Your task to perform on an android device: Clear all items from cart on amazon. Add usb-c to the cart on amazon Image 0: 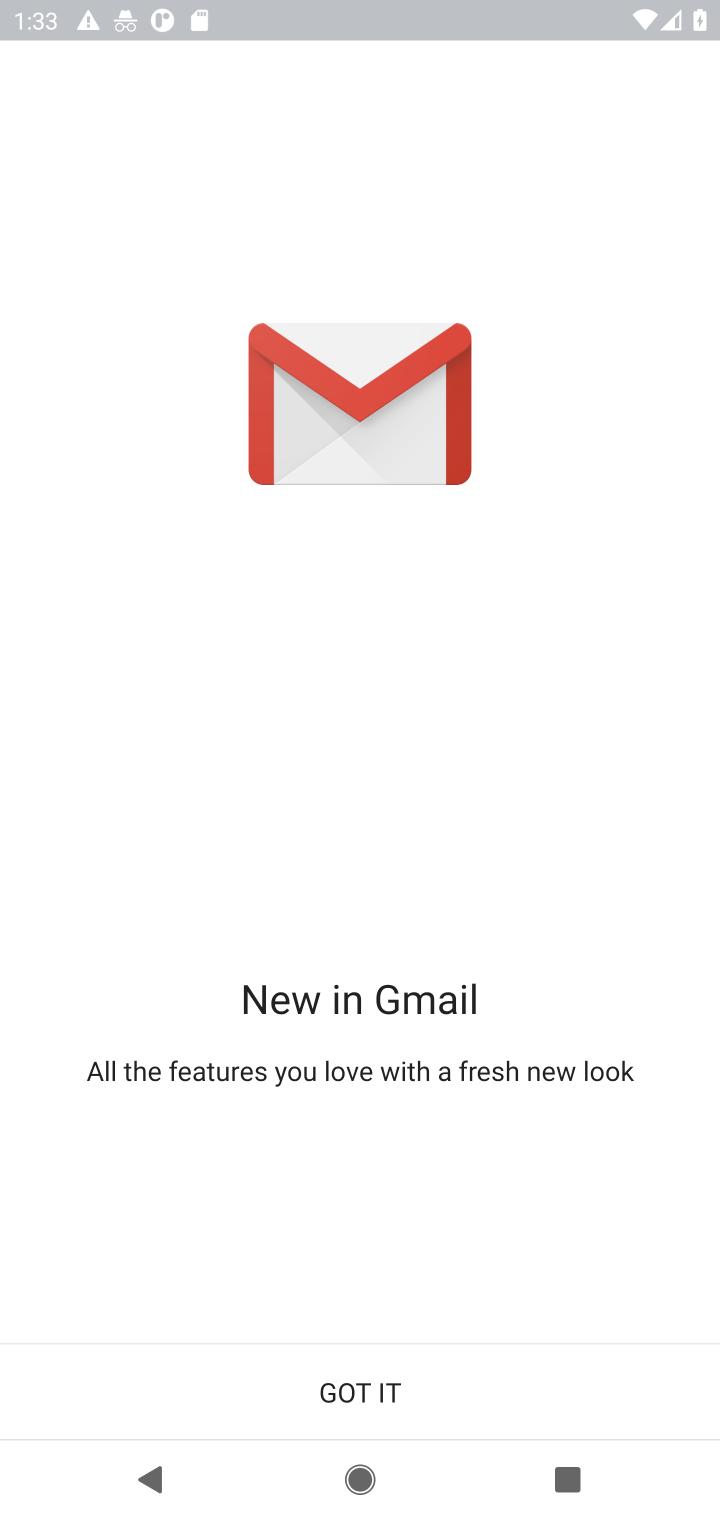
Step 0: press home button
Your task to perform on an android device: Clear all items from cart on amazon. Add usb-c to the cart on amazon Image 1: 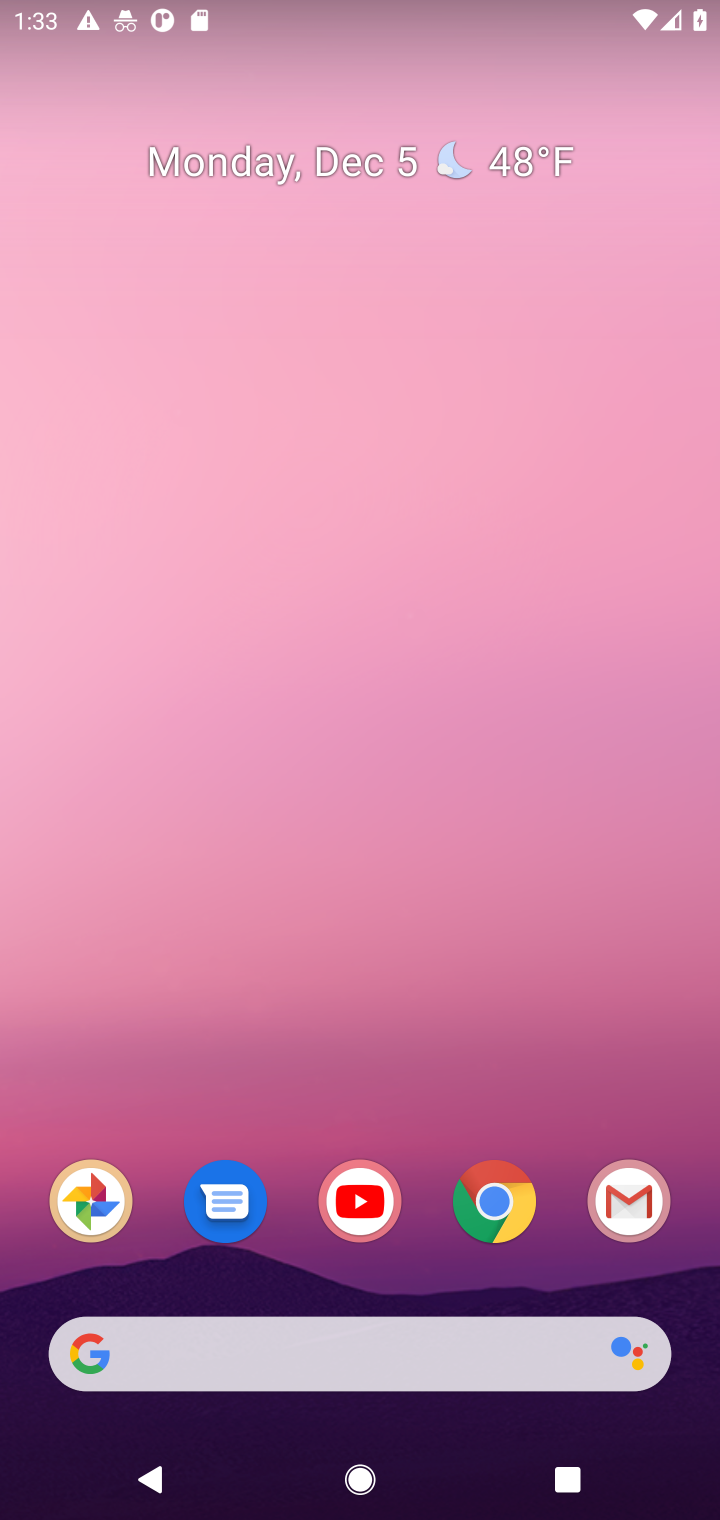
Step 1: click (477, 1210)
Your task to perform on an android device: Clear all items from cart on amazon. Add usb-c to the cart on amazon Image 2: 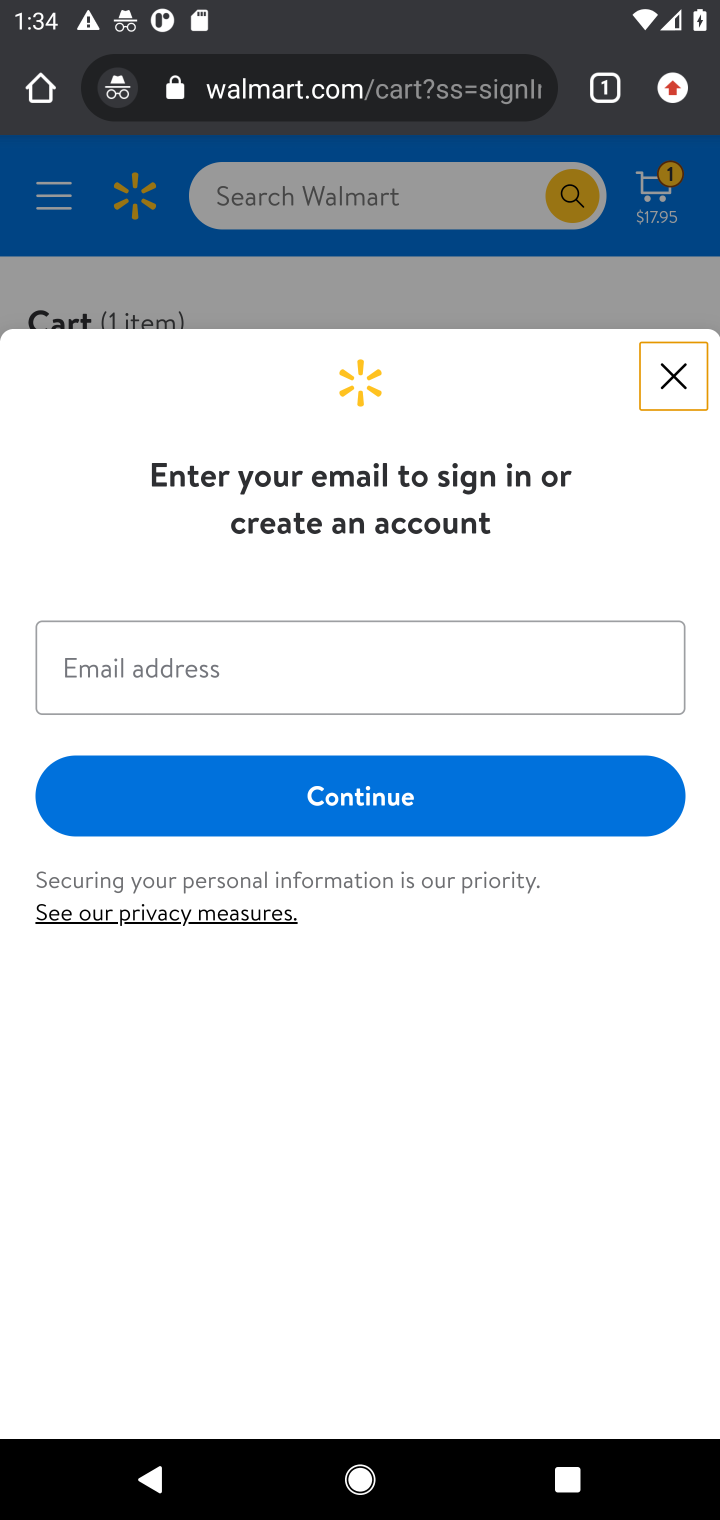
Step 2: click (337, 102)
Your task to perform on an android device: Clear all items from cart on amazon. Add usb-c to the cart on amazon Image 3: 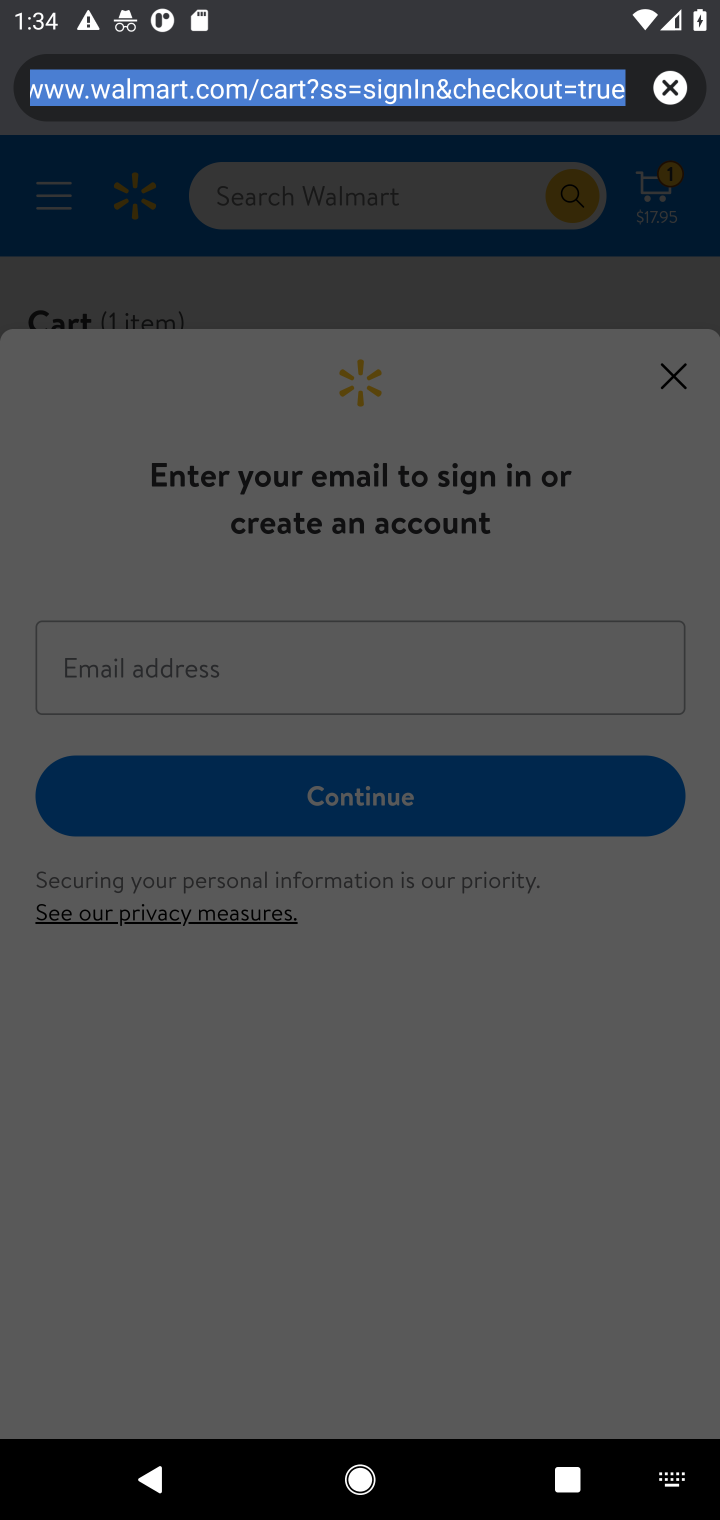
Step 3: click (665, 87)
Your task to perform on an android device: Clear all items from cart on amazon. Add usb-c to the cart on amazon Image 4: 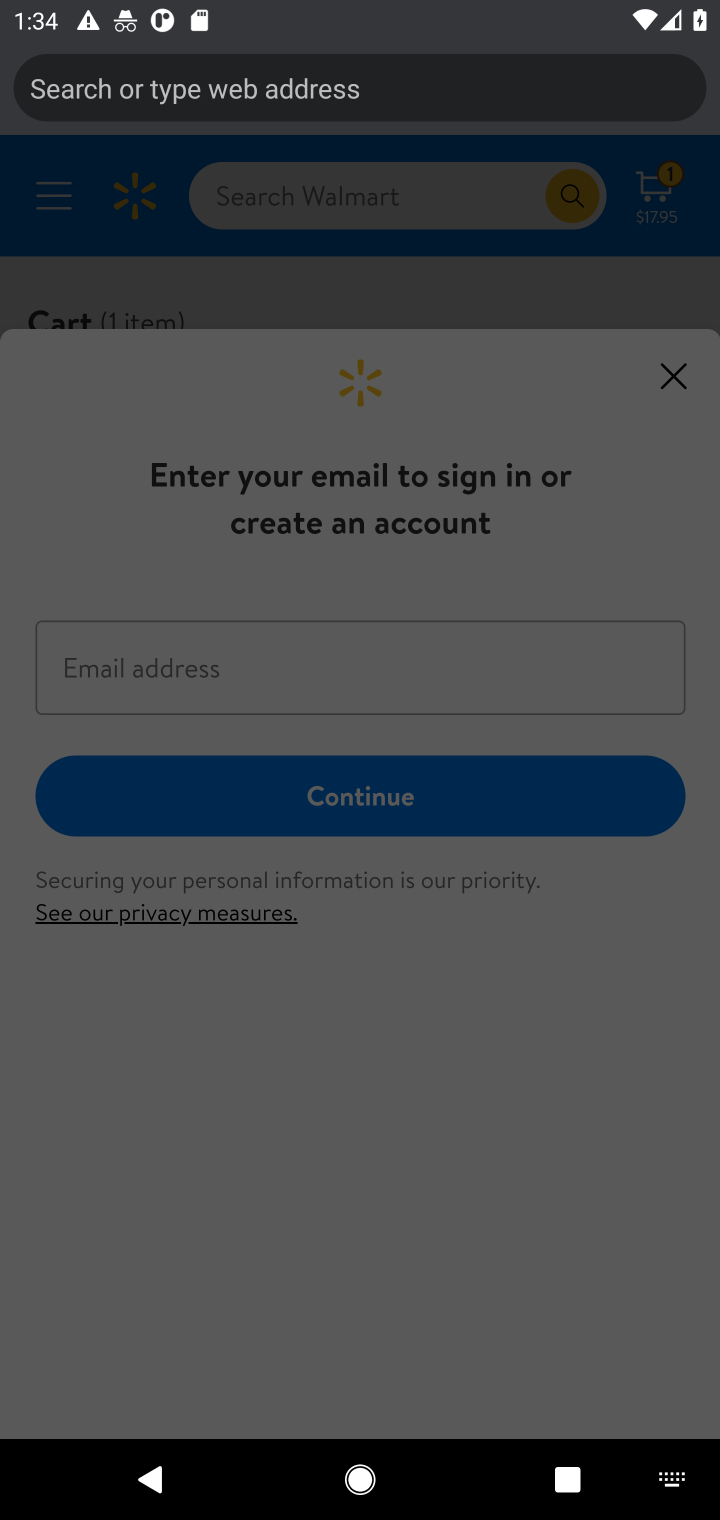
Step 4: type "amazon"
Your task to perform on an android device: Clear all items from cart on amazon. Add usb-c to the cart on amazon Image 5: 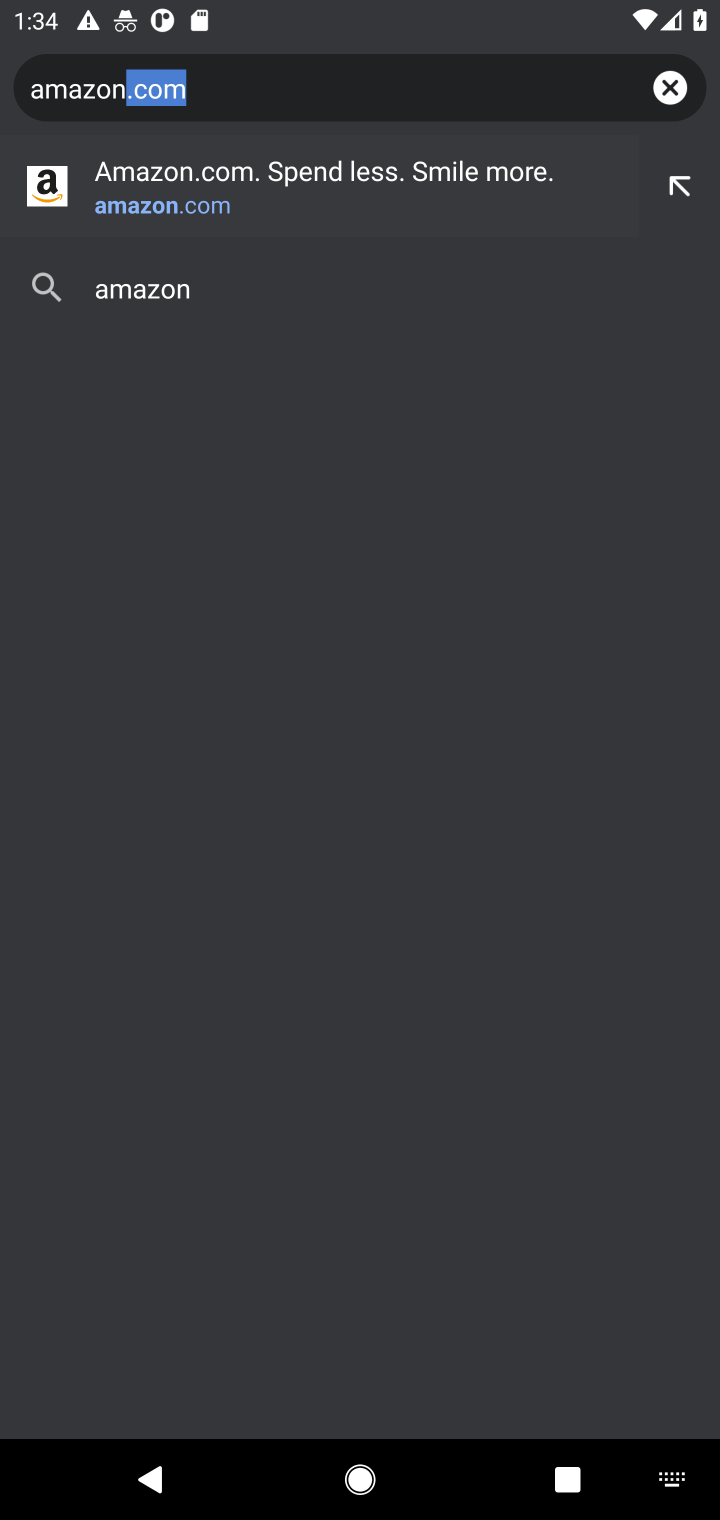
Step 5: click (147, 205)
Your task to perform on an android device: Clear all items from cart on amazon. Add usb-c to the cart on amazon Image 6: 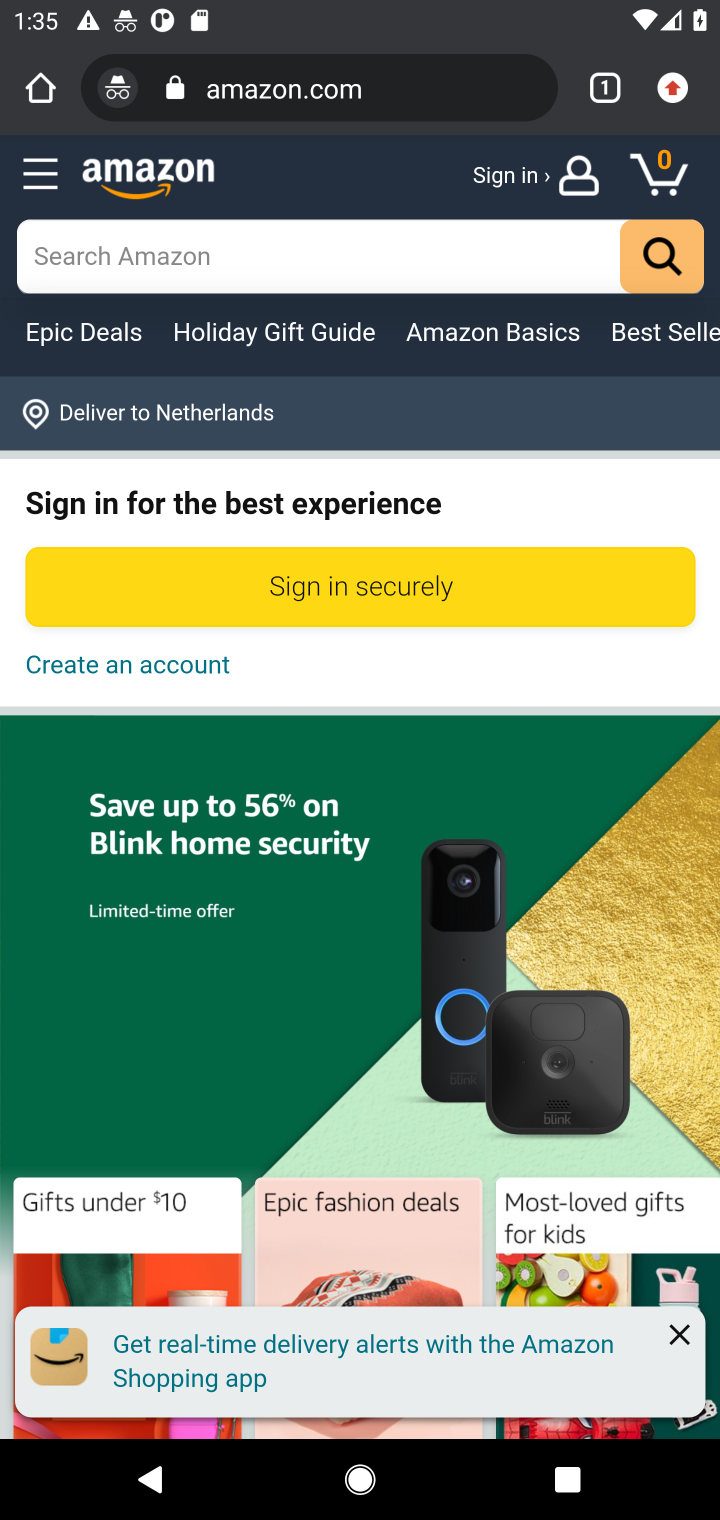
Step 6: click (677, 181)
Your task to perform on an android device: Clear all items from cart on amazon. Add usb-c to the cart on amazon Image 7: 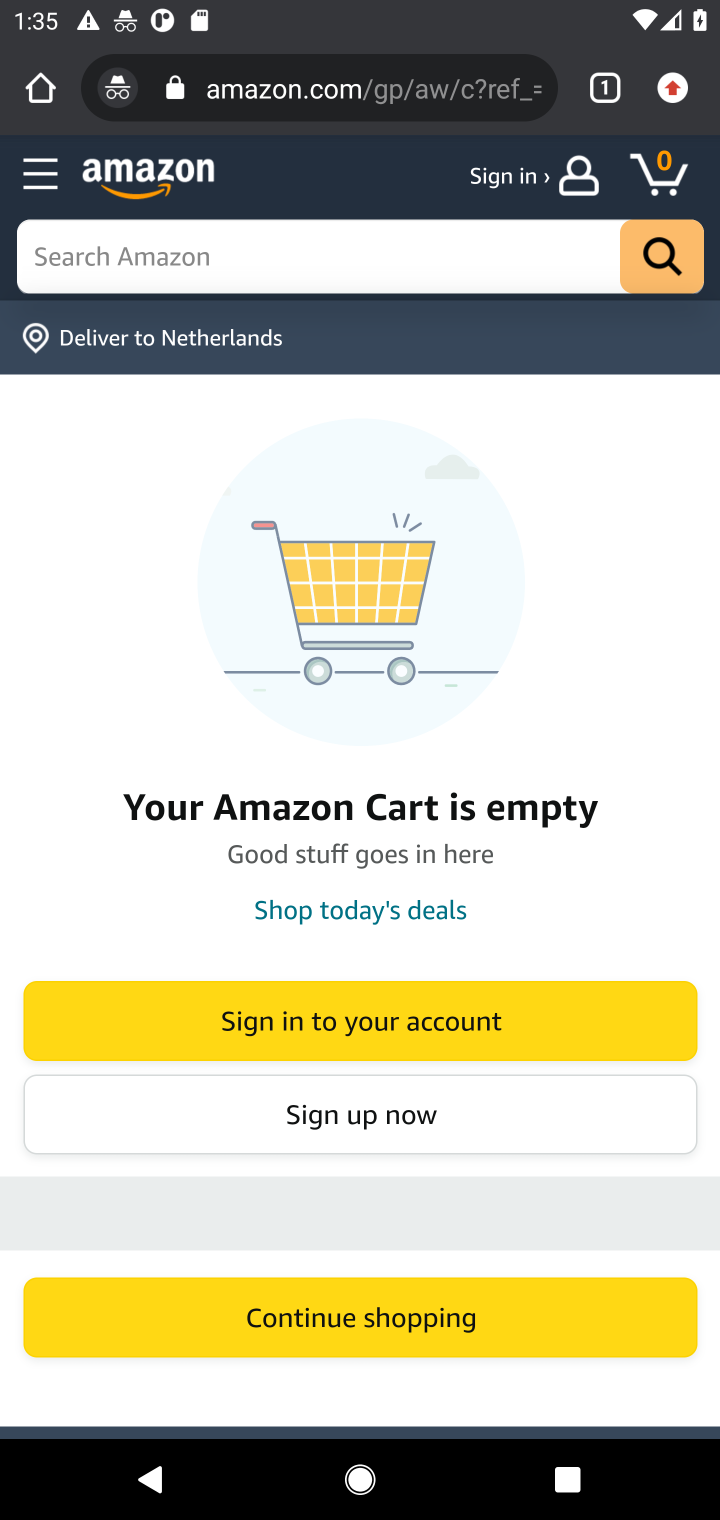
Step 7: click (185, 204)
Your task to perform on an android device: Clear all items from cart on amazon. Add usb-c to the cart on amazon Image 8: 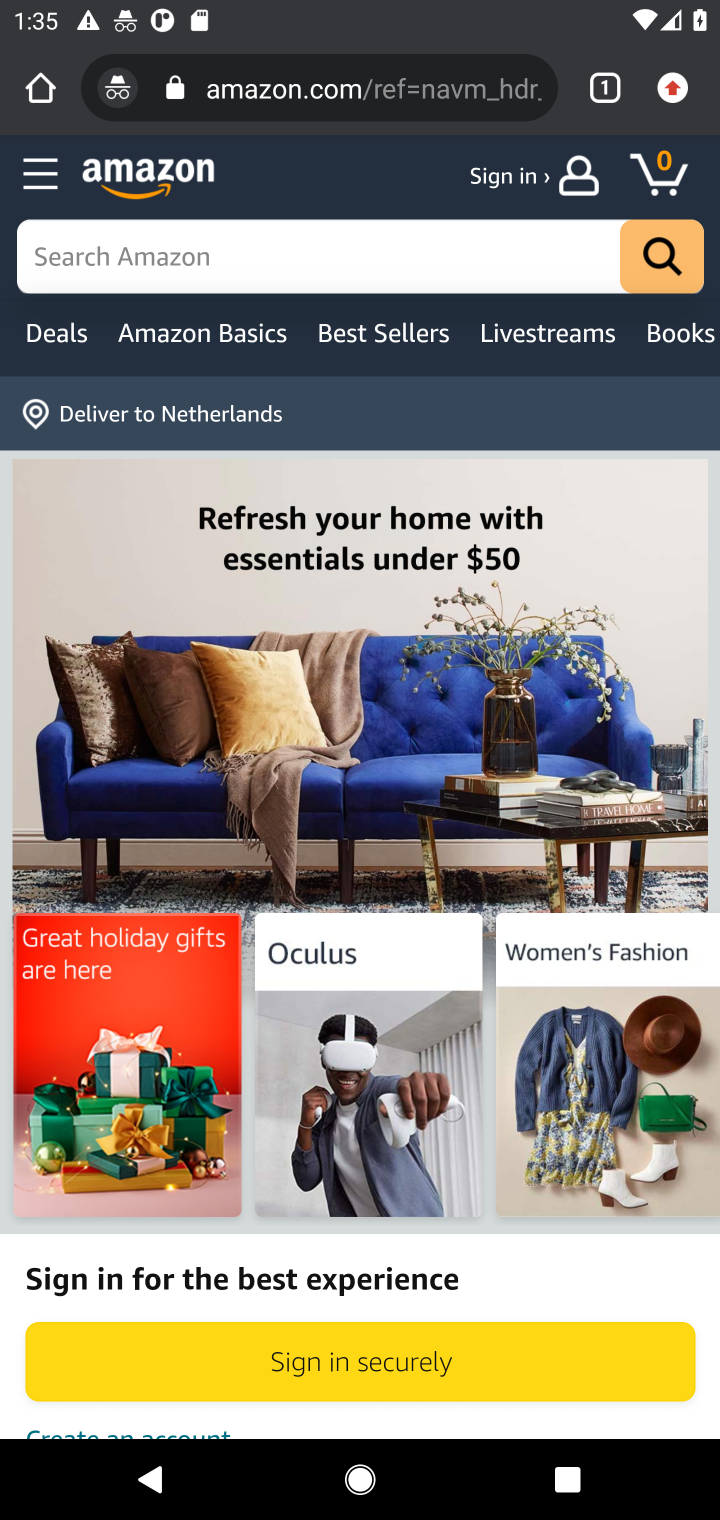
Step 8: click (226, 249)
Your task to perform on an android device: Clear all items from cart on amazon. Add usb-c to the cart on amazon Image 9: 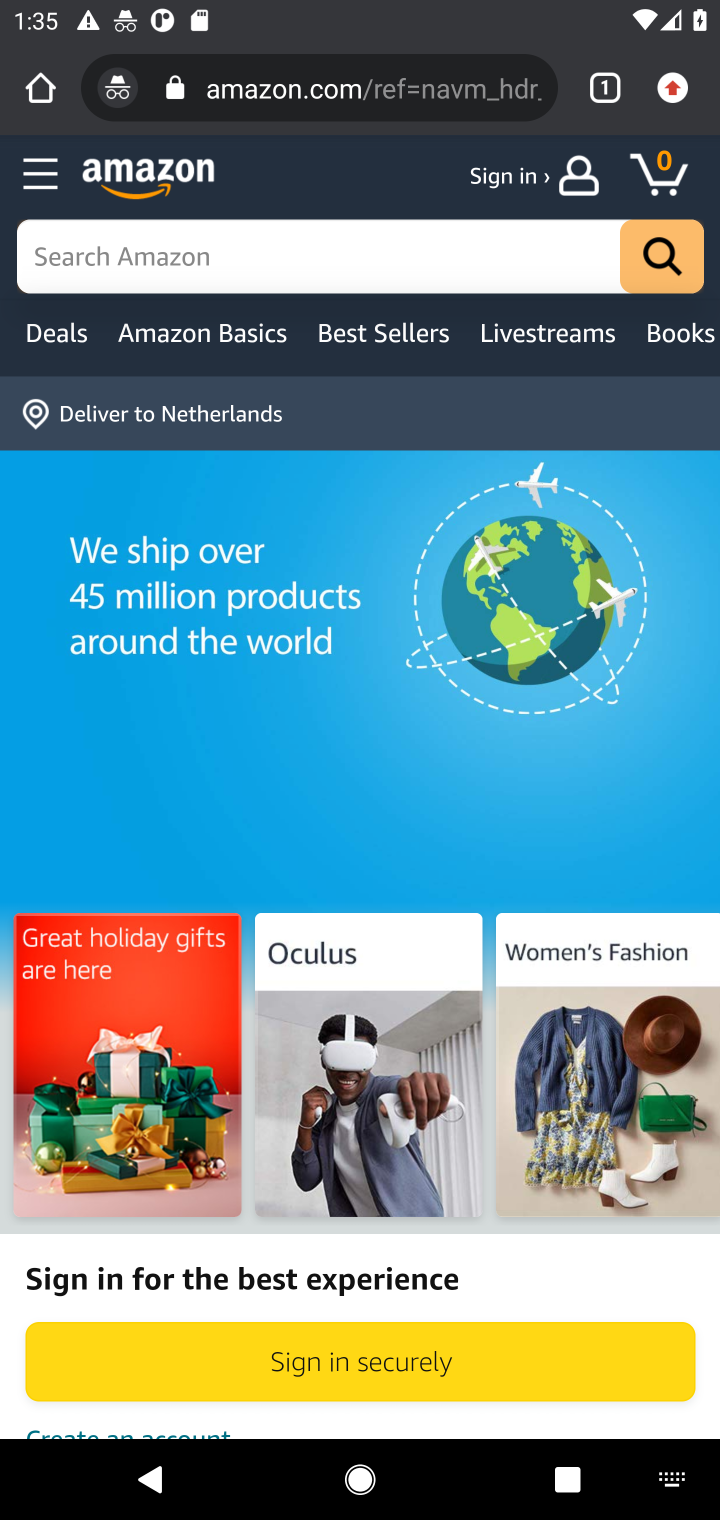
Step 9: click (226, 249)
Your task to perform on an android device: Clear all items from cart on amazon. Add usb-c to the cart on amazon Image 10: 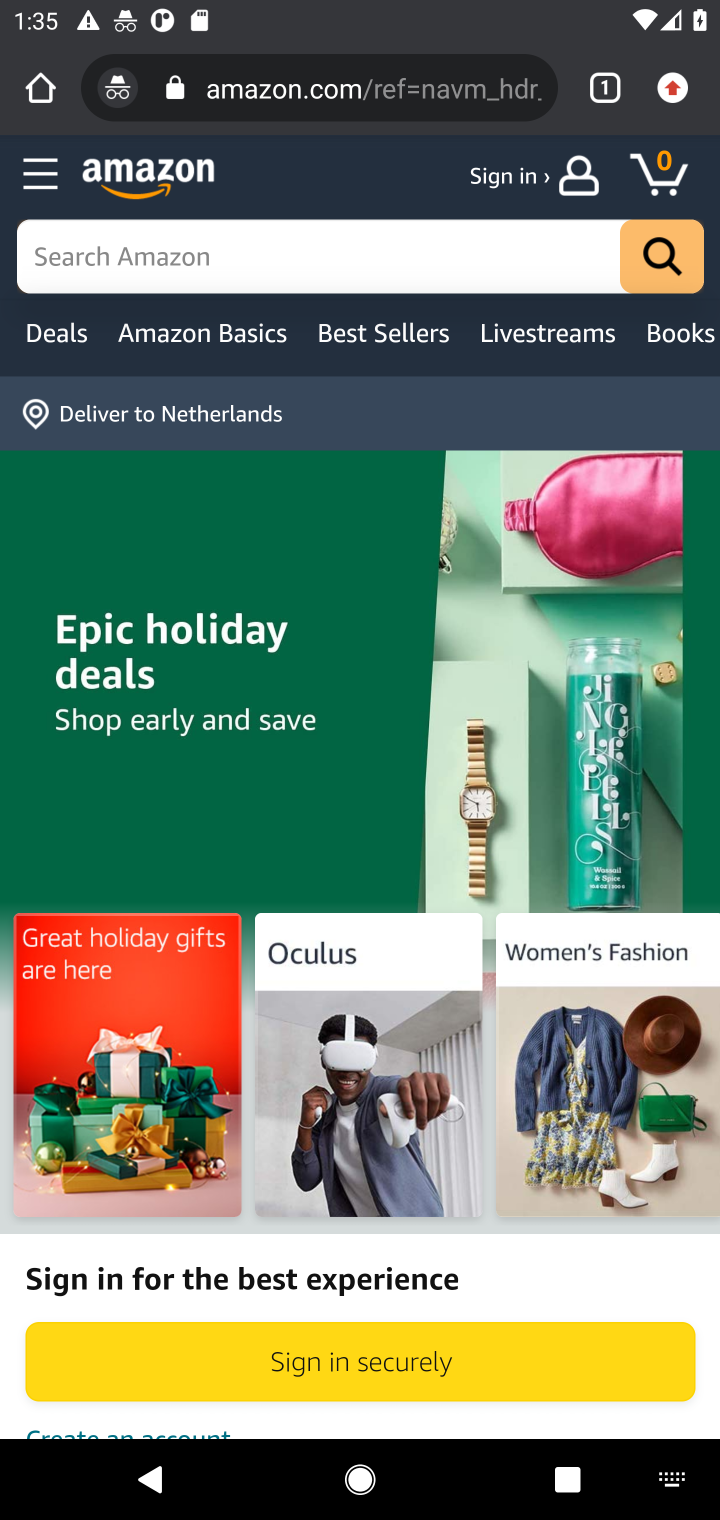
Step 10: type "usb -c"
Your task to perform on an android device: Clear all items from cart on amazon. Add usb-c to the cart on amazon Image 11: 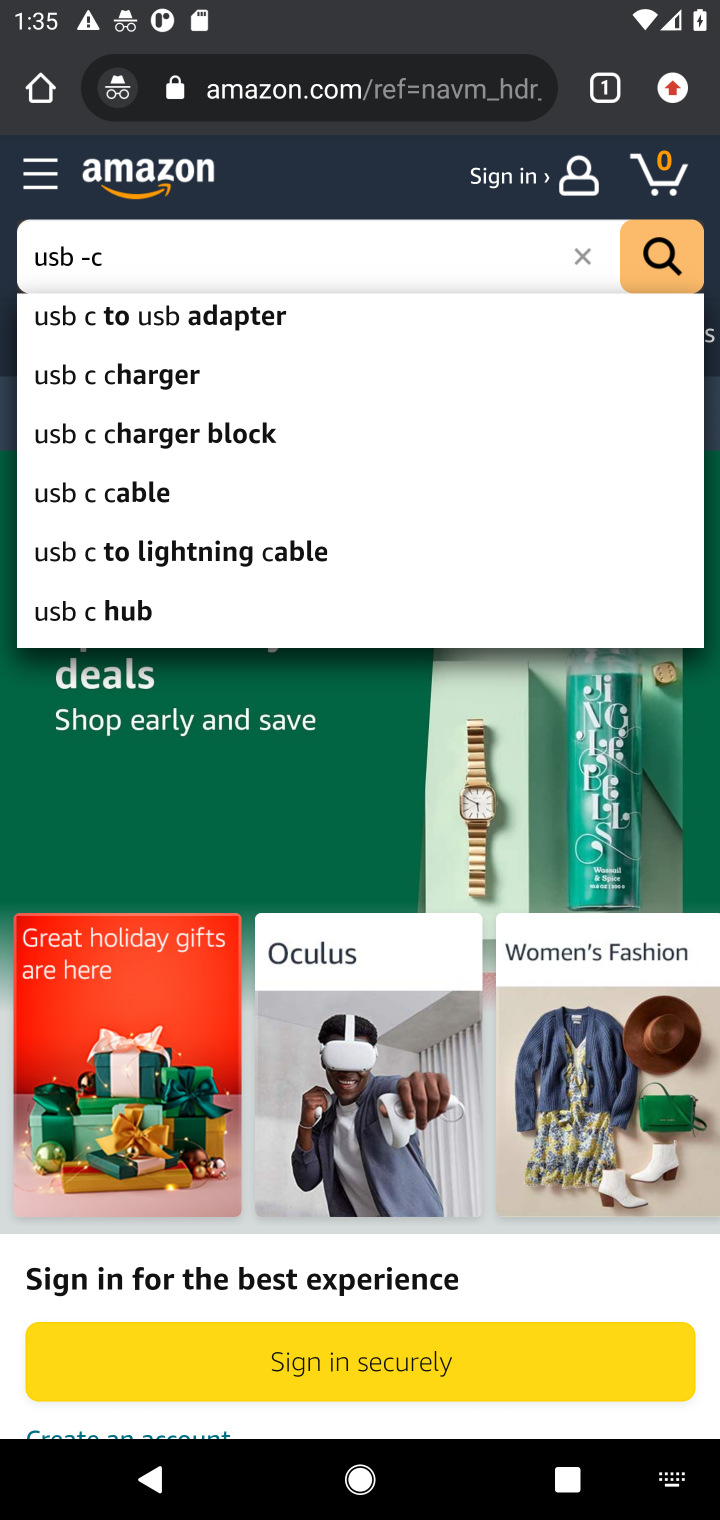
Step 11: click (660, 252)
Your task to perform on an android device: Clear all items from cart on amazon. Add usb-c to the cart on amazon Image 12: 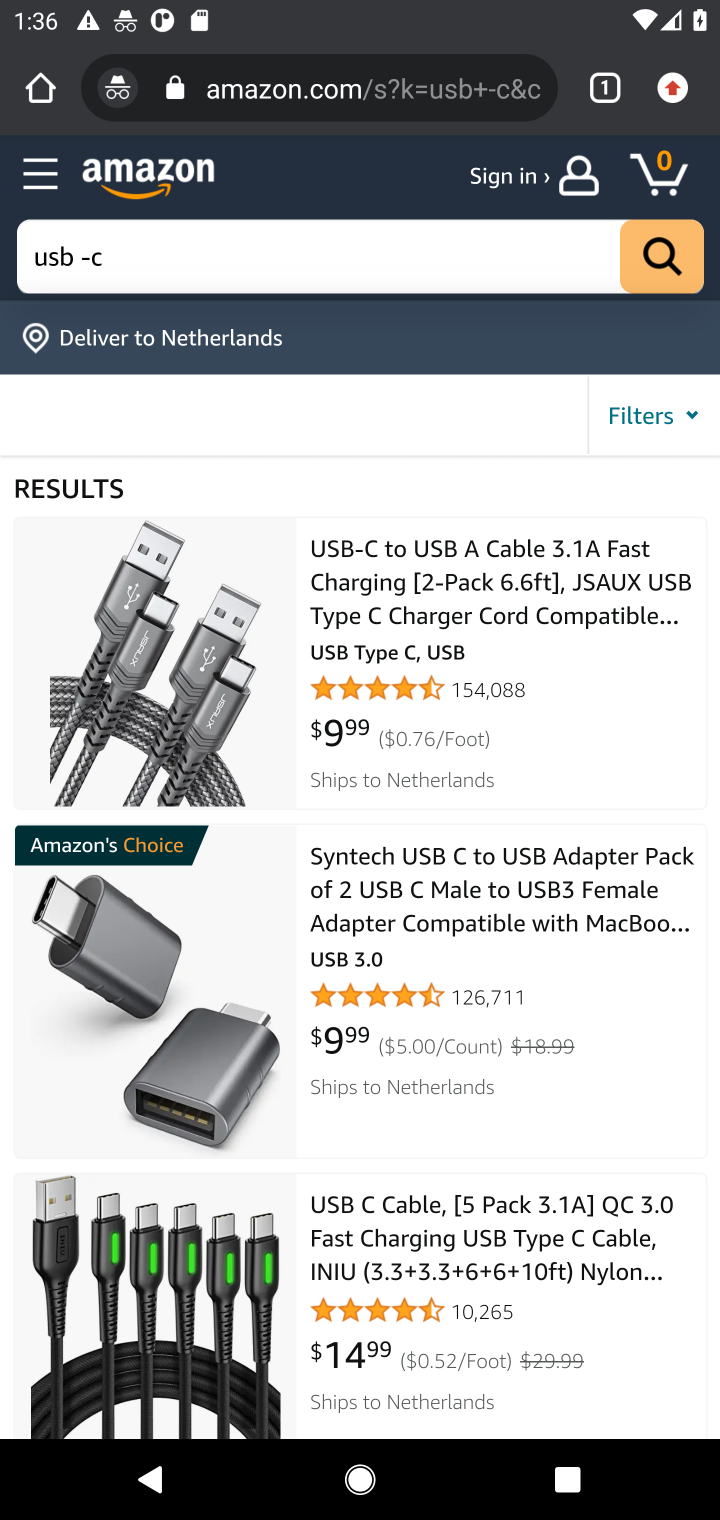
Step 12: click (407, 857)
Your task to perform on an android device: Clear all items from cart on amazon. Add usb-c to the cart on amazon Image 13: 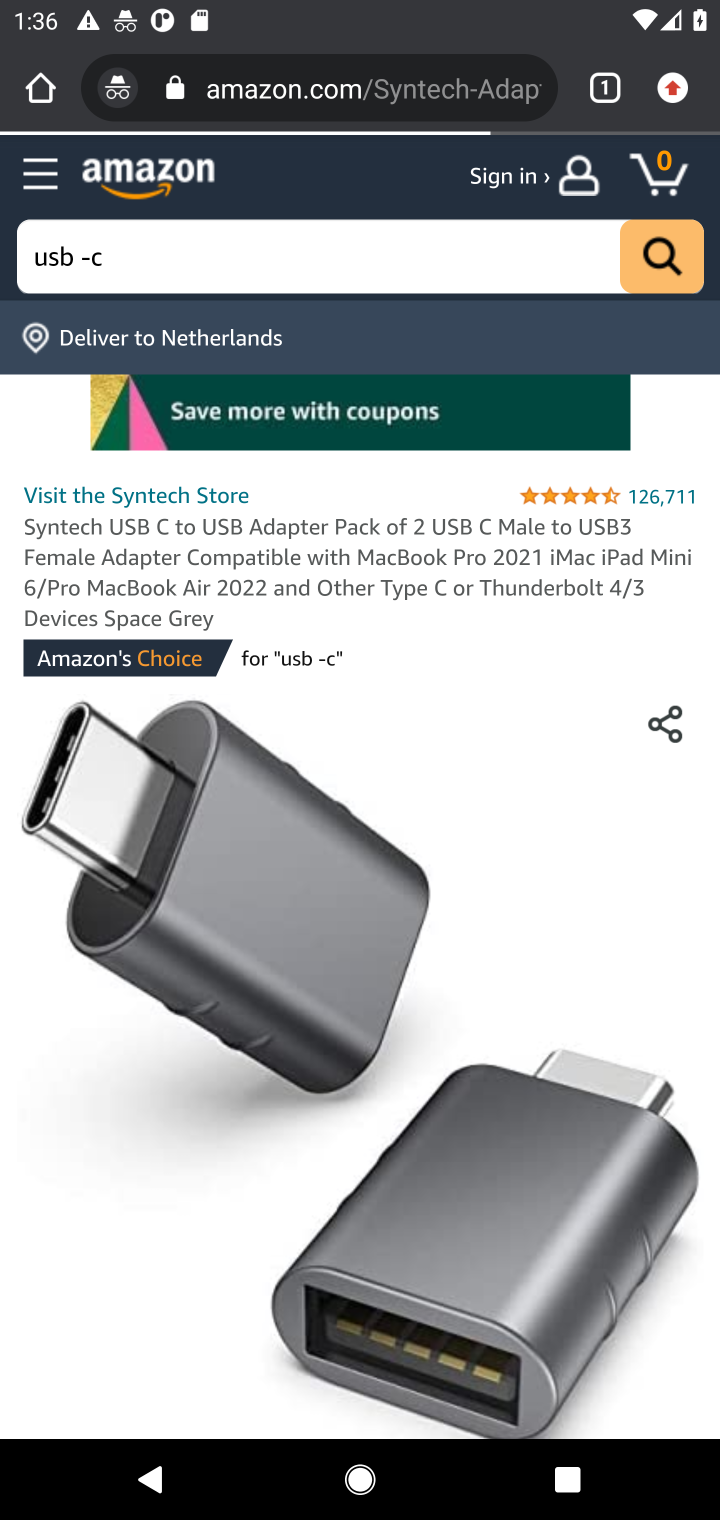
Step 13: drag from (168, 1193) to (322, 379)
Your task to perform on an android device: Clear all items from cart on amazon. Add usb-c to the cart on amazon Image 14: 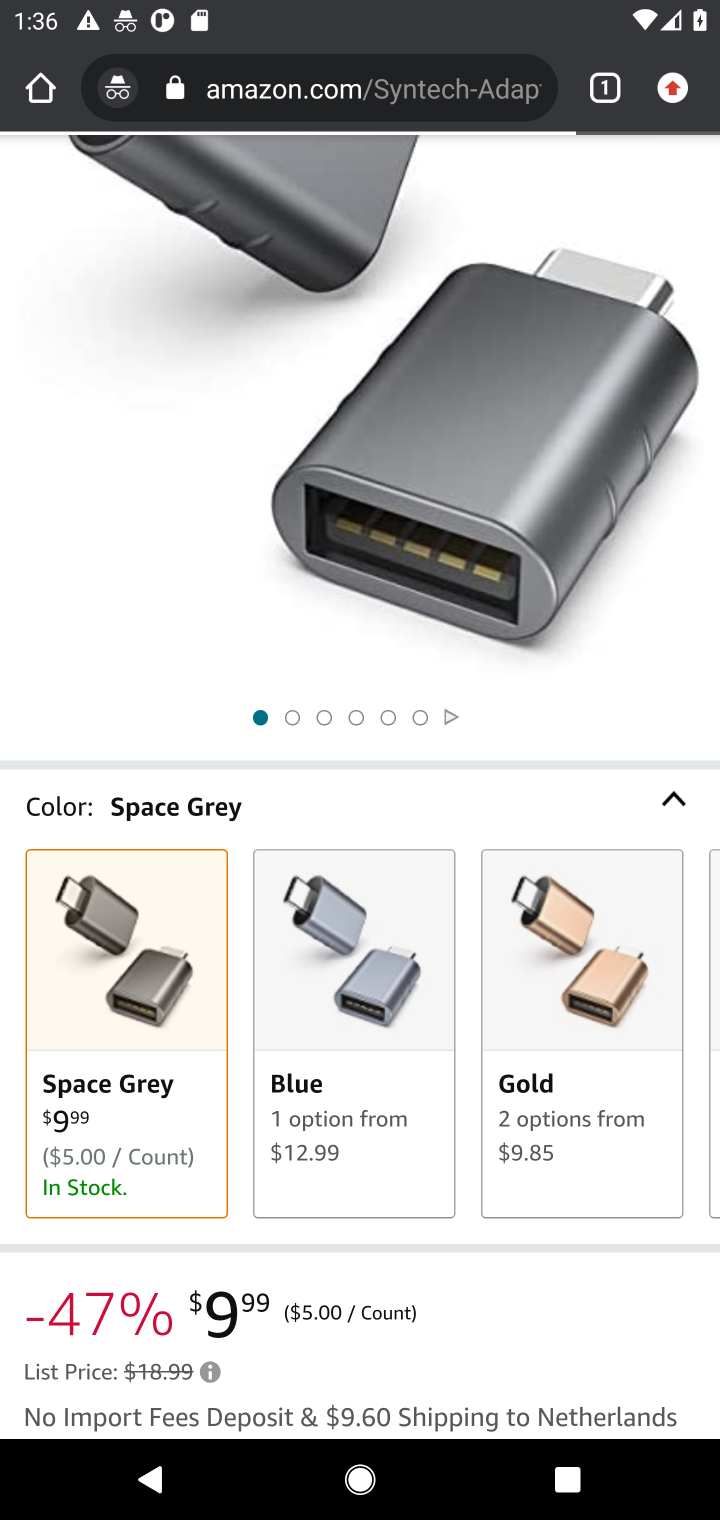
Step 14: drag from (358, 1283) to (419, 453)
Your task to perform on an android device: Clear all items from cart on amazon. Add usb-c to the cart on amazon Image 15: 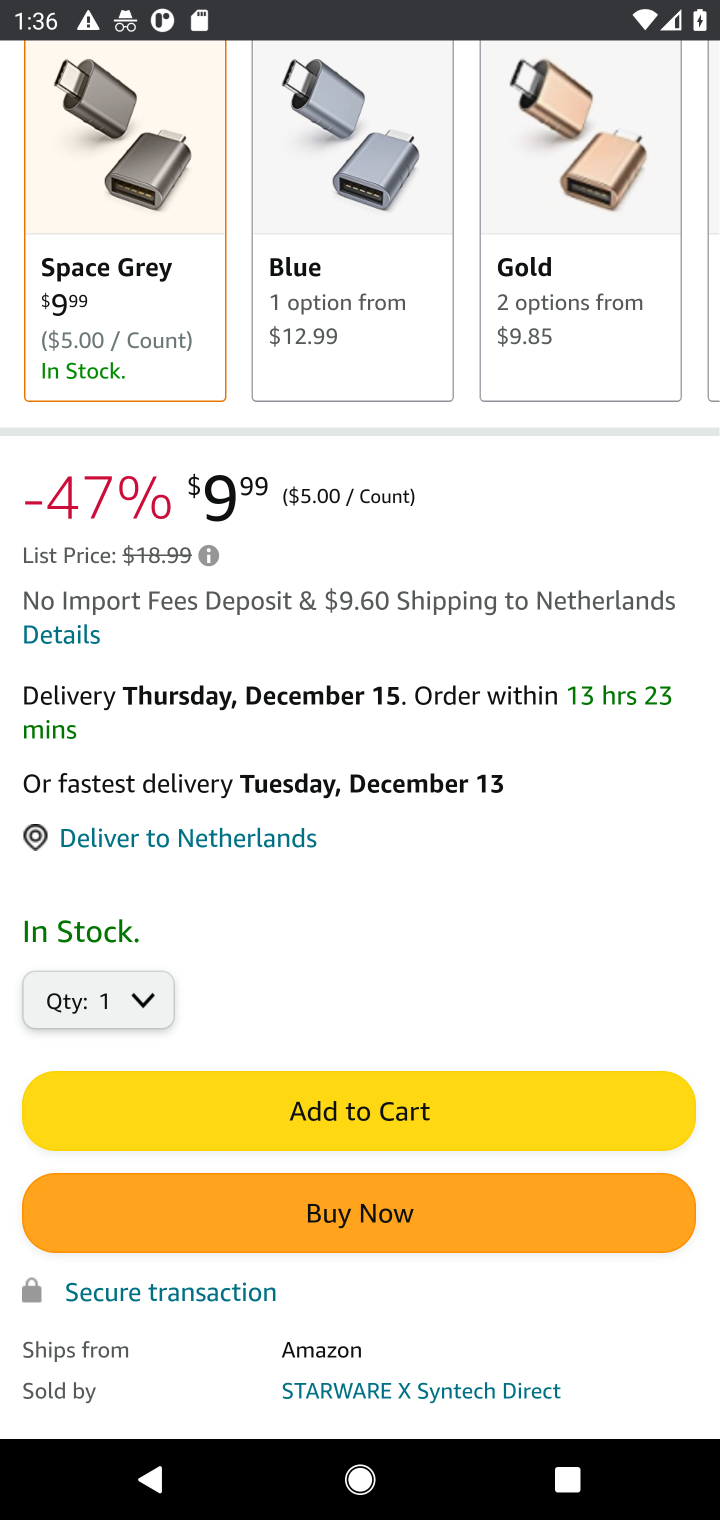
Step 15: click (512, 1069)
Your task to perform on an android device: Clear all items from cart on amazon. Add usb-c to the cart on amazon Image 16: 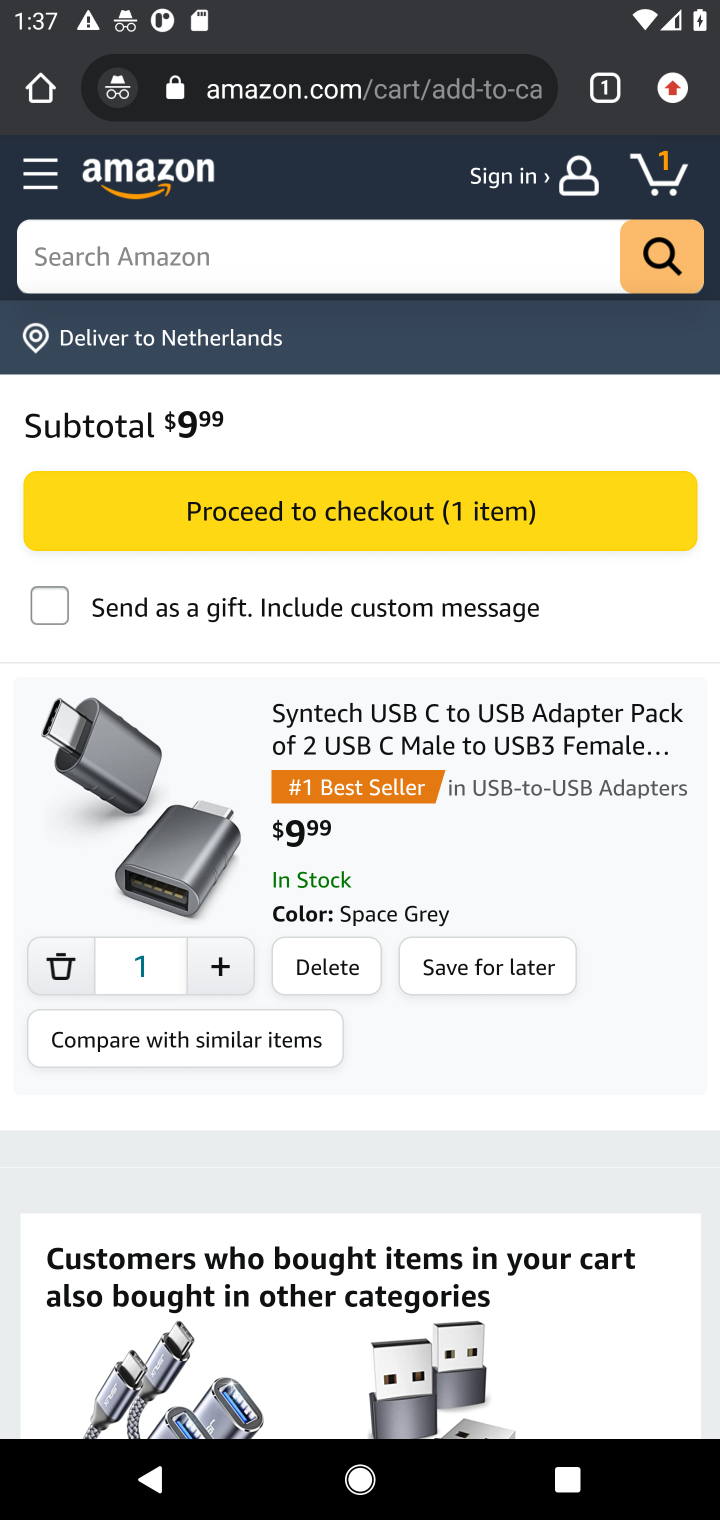
Step 16: task complete